Your task to perform on an android device: Open maps Image 0: 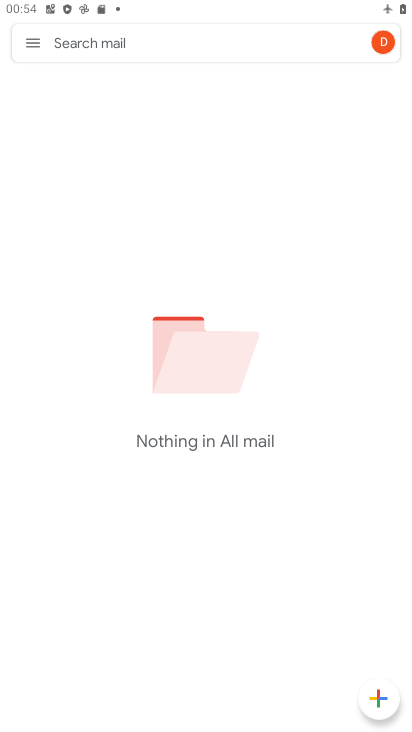
Step 0: press home button
Your task to perform on an android device: Open maps Image 1: 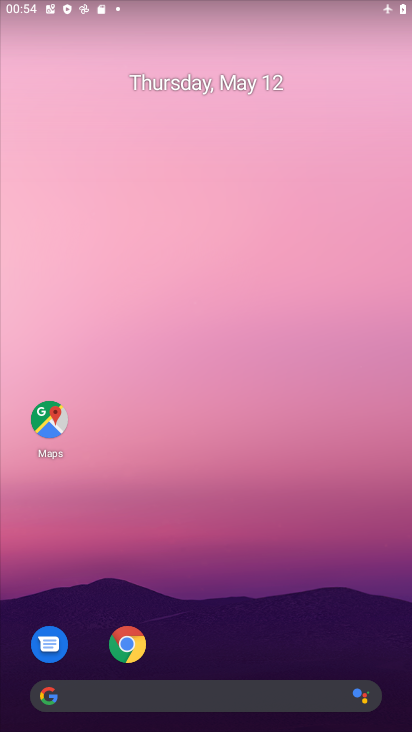
Step 1: click (52, 426)
Your task to perform on an android device: Open maps Image 2: 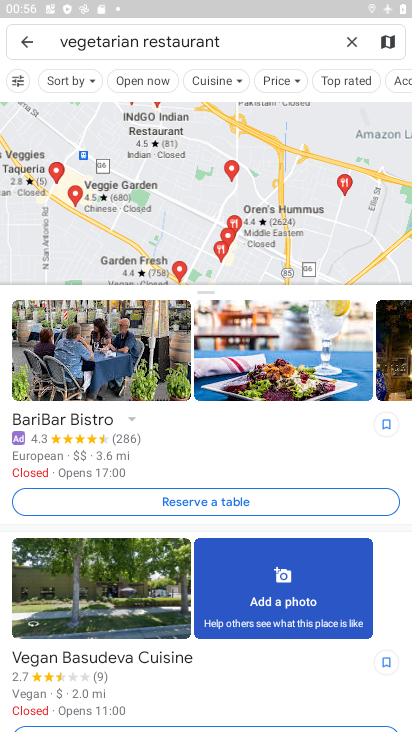
Step 2: task complete